Your task to perform on an android device: set the stopwatch Image 0: 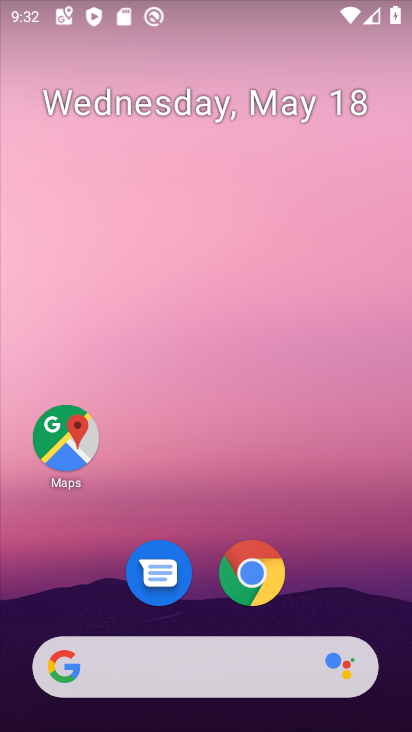
Step 0: drag from (147, 722) to (266, 224)
Your task to perform on an android device: set the stopwatch Image 1: 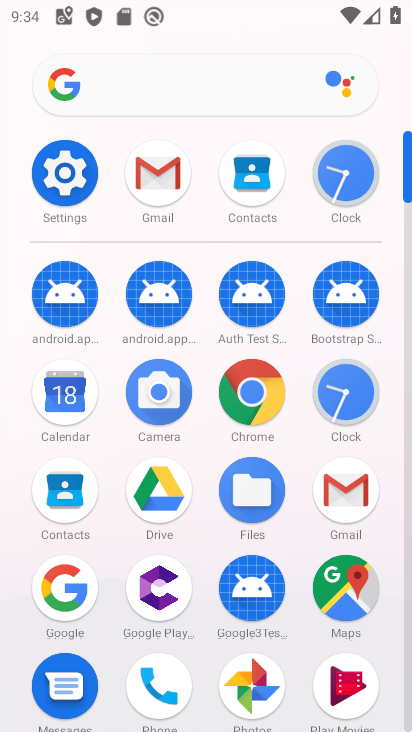
Step 1: click (344, 183)
Your task to perform on an android device: set the stopwatch Image 2: 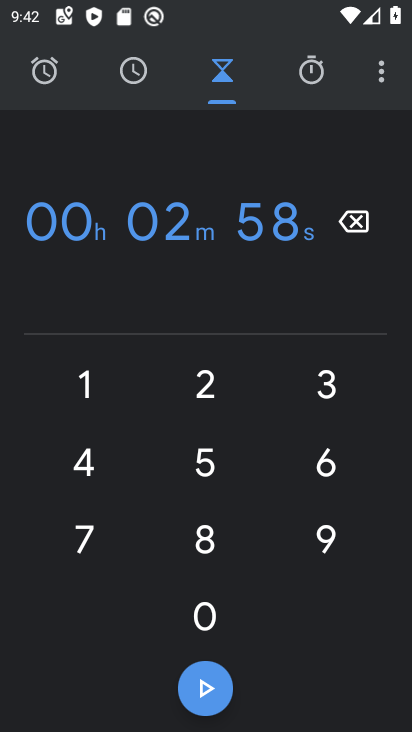
Step 2: click (322, 60)
Your task to perform on an android device: set the stopwatch Image 3: 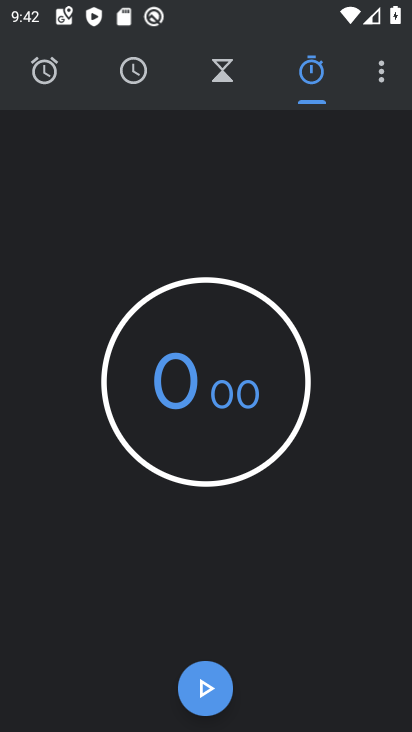
Step 3: task complete